Your task to perform on an android device: remove spam from my inbox in the gmail app Image 0: 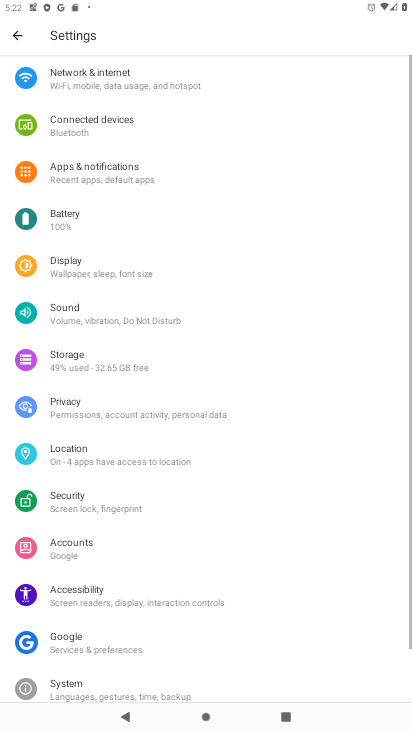
Step 0: press home button
Your task to perform on an android device: remove spam from my inbox in the gmail app Image 1: 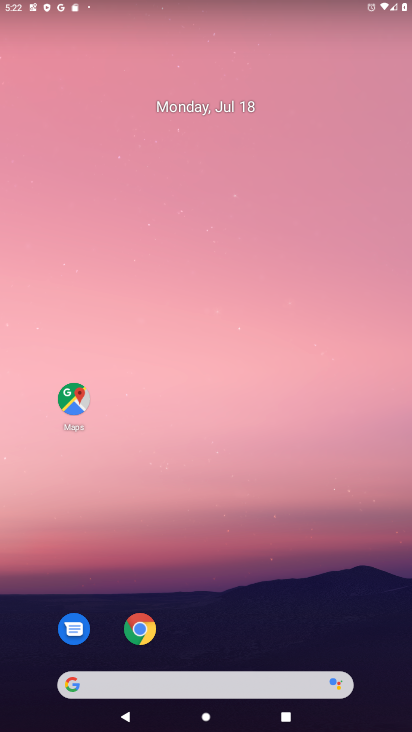
Step 1: drag from (264, 599) to (290, 70)
Your task to perform on an android device: remove spam from my inbox in the gmail app Image 2: 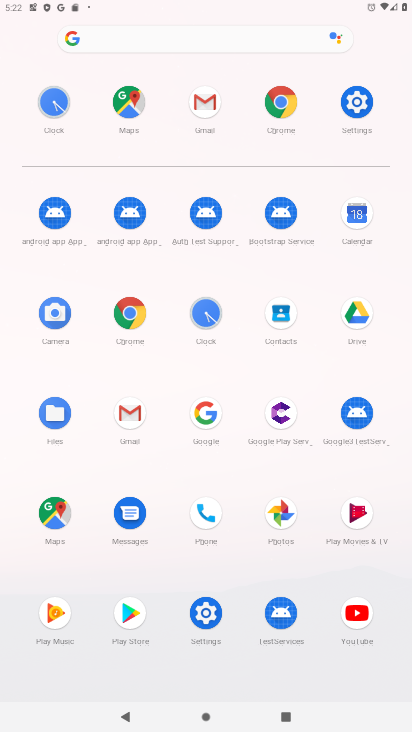
Step 2: click (198, 90)
Your task to perform on an android device: remove spam from my inbox in the gmail app Image 3: 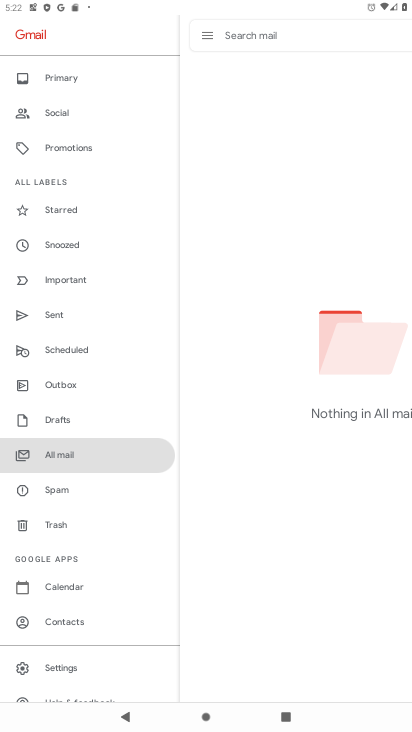
Step 3: click (67, 82)
Your task to perform on an android device: remove spam from my inbox in the gmail app Image 4: 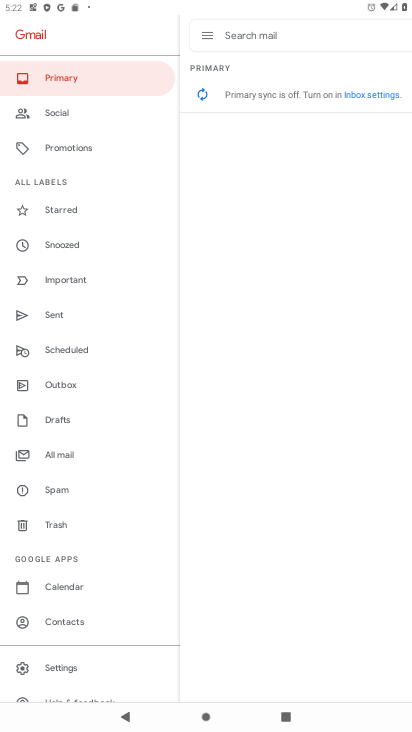
Step 4: task complete